Your task to perform on an android device: remove spam from my inbox in the gmail app Image 0: 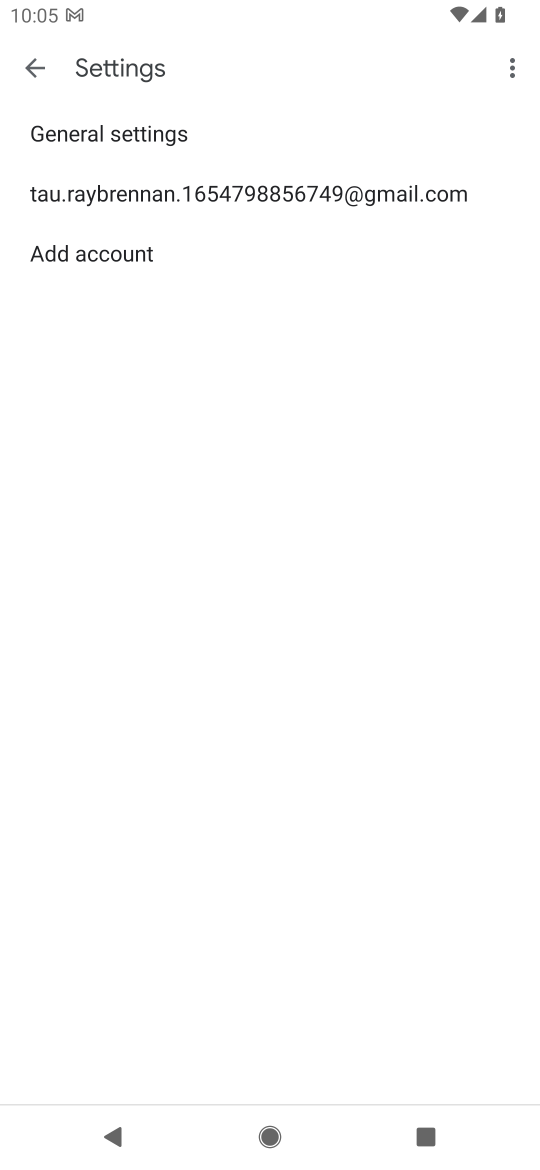
Step 0: click (33, 66)
Your task to perform on an android device: remove spam from my inbox in the gmail app Image 1: 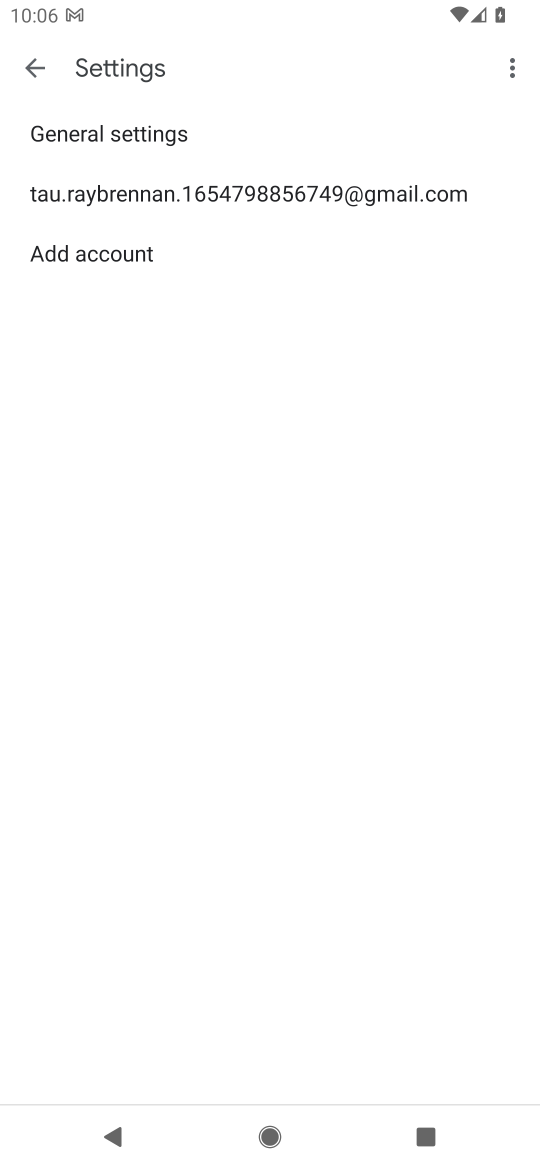
Step 1: click (33, 66)
Your task to perform on an android device: remove spam from my inbox in the gmail app Image 2: 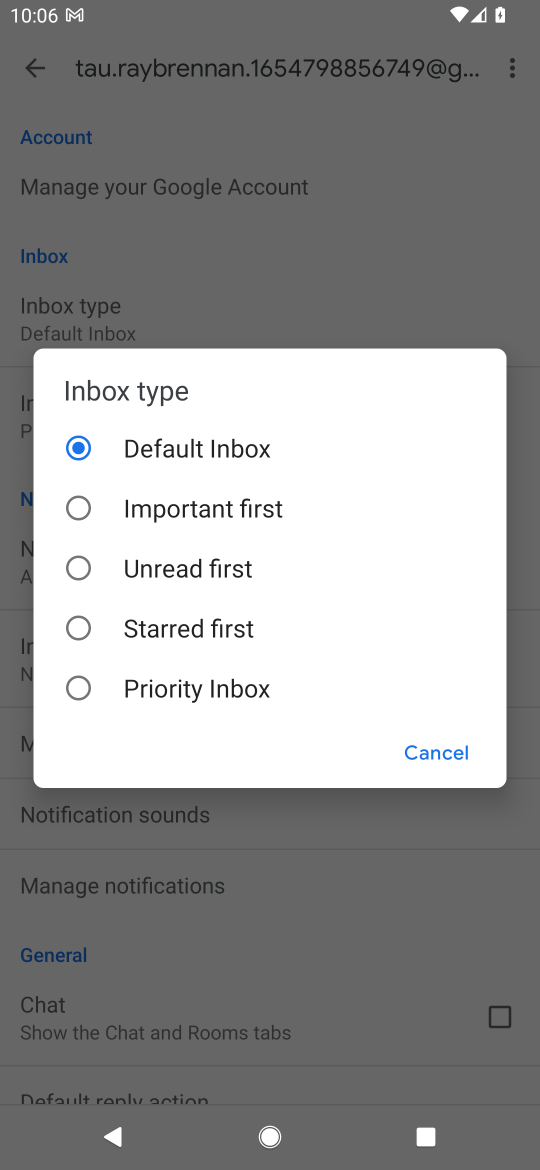
Step 2: click (151, 239)
Your task to perform on an android device: remove spam from my inbox in the gmail app Image 3: 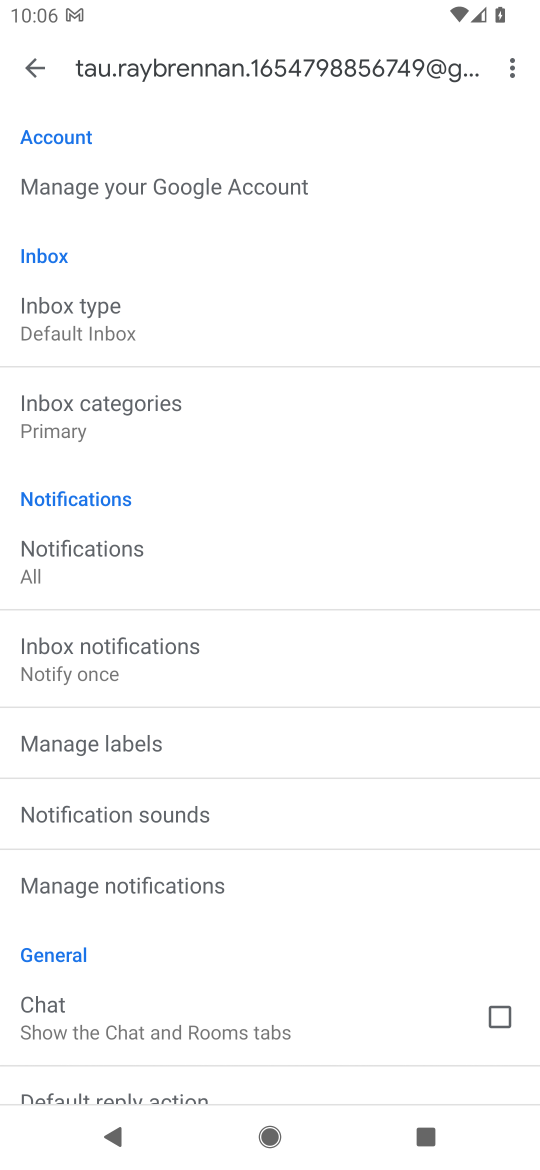
Step 3: click (30, 56)
Your task to perform on an android device: remove spam from my inbox in the gmail app Image 4: 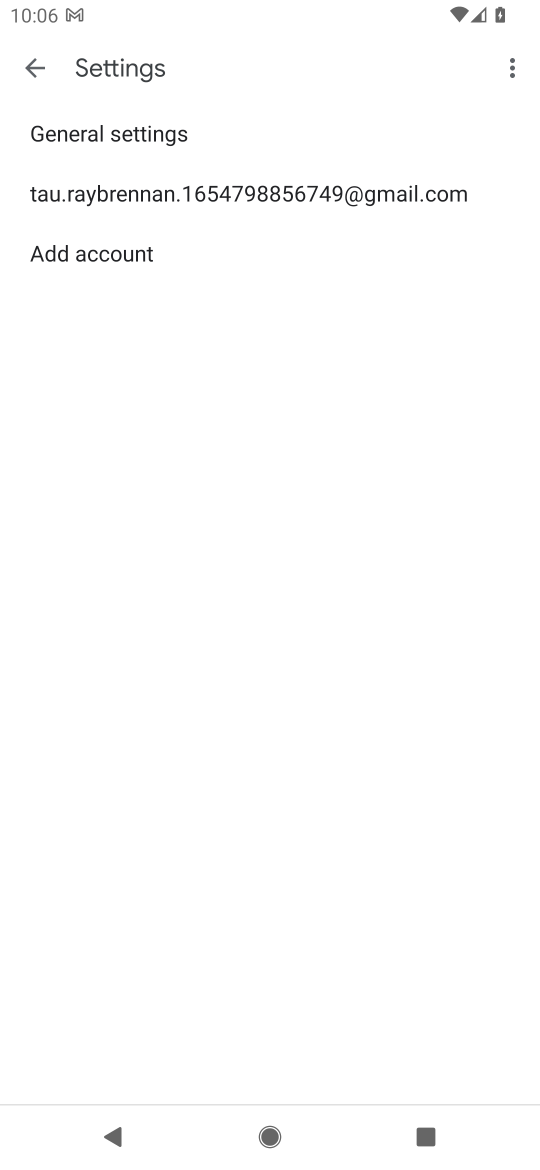
Step 4: click (31, 67)
Your task to perform on an android device: remove spam from my inbox in the gmail app Image 5: 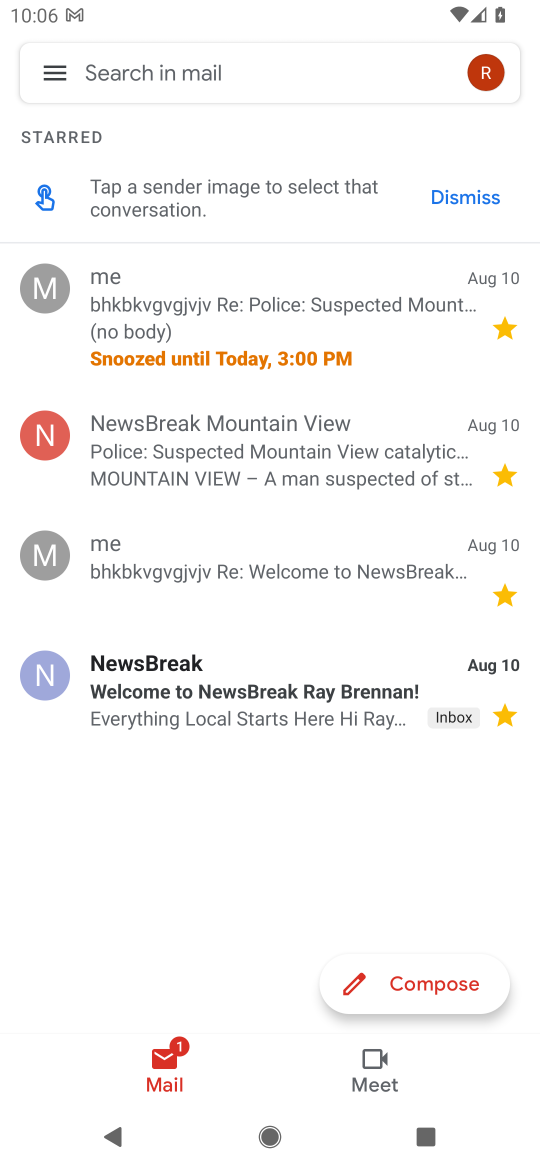
Step 5: click (55, 60)
Your task to perform on an android device: remove spam from my inbox in the gmail app Image 6: 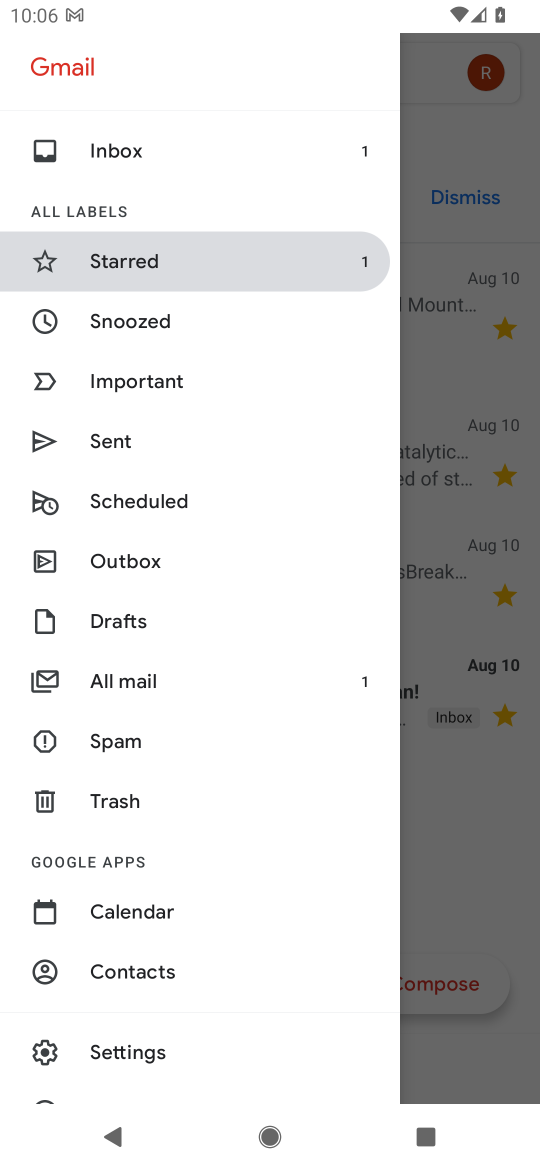
Step 6: click (134, 734)
Your task to perform on an android device: remove spam from my inbox in the gmail app Image 7: 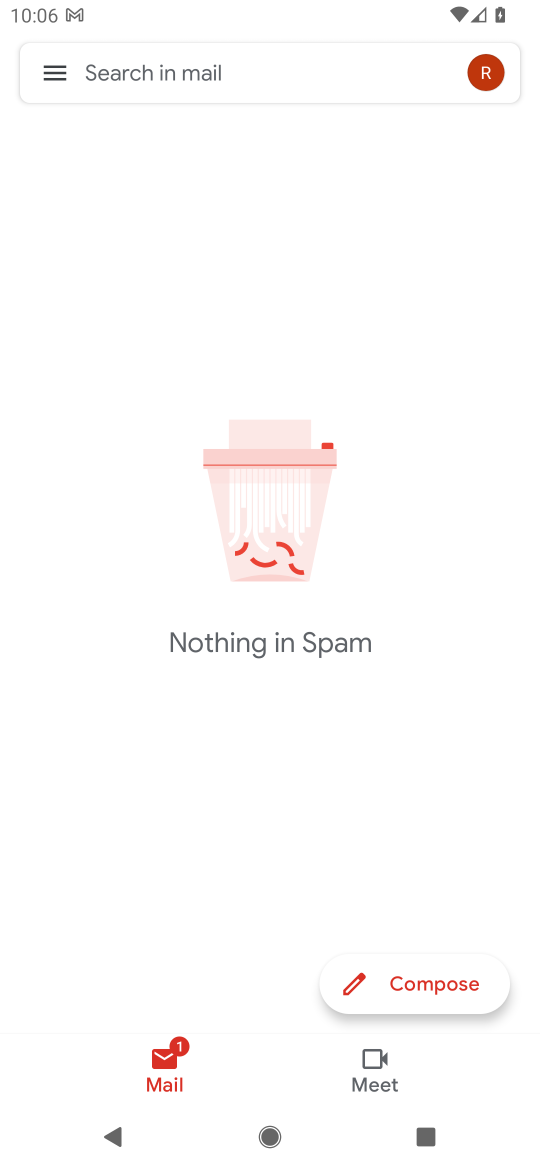
Step 7: task complete